Your task to perform on an android device: turn on sleep mode Image 0: 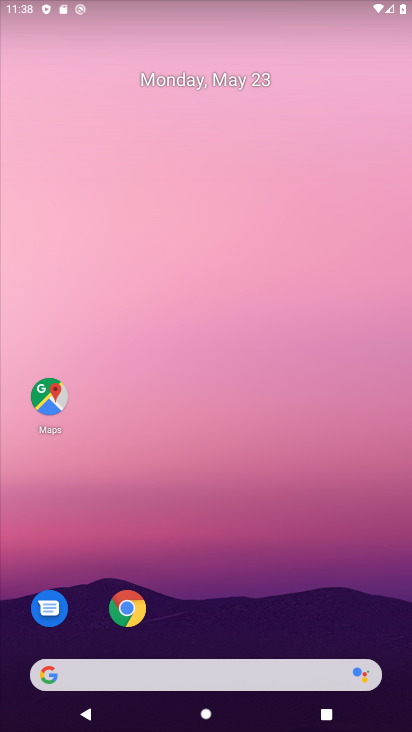
Step 0: press home button
Your task to perform on an android device: turn on sleep mode Image 1: 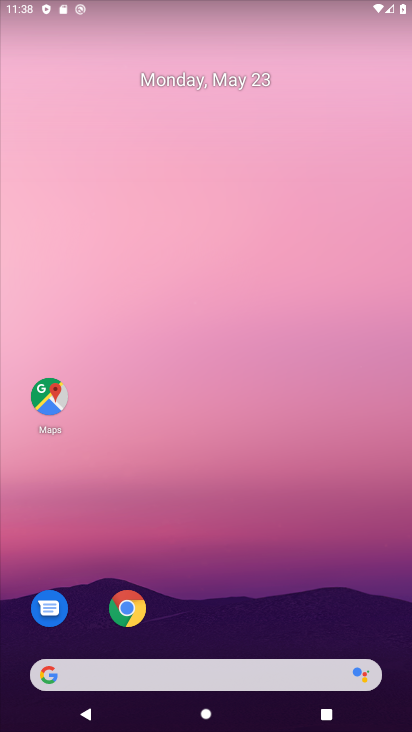
Step 1: drag from (214, 641) to (227, 38)
Your task to perform on an android device: turn on sleep mode Image 2: 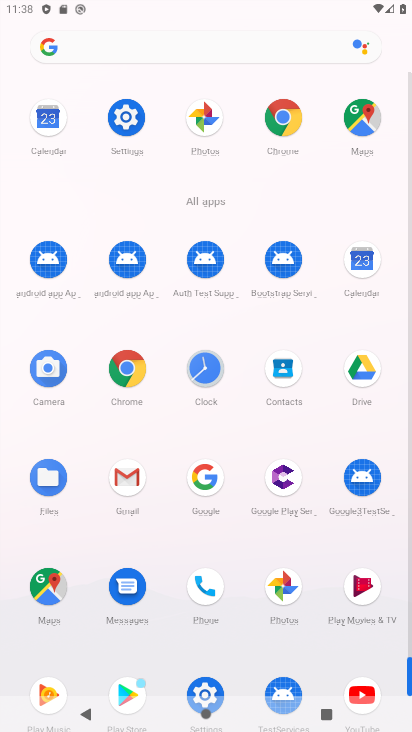
Step 2: click (124, 113)
Your task to perform on an android device: turn on sleep mode Image 3: 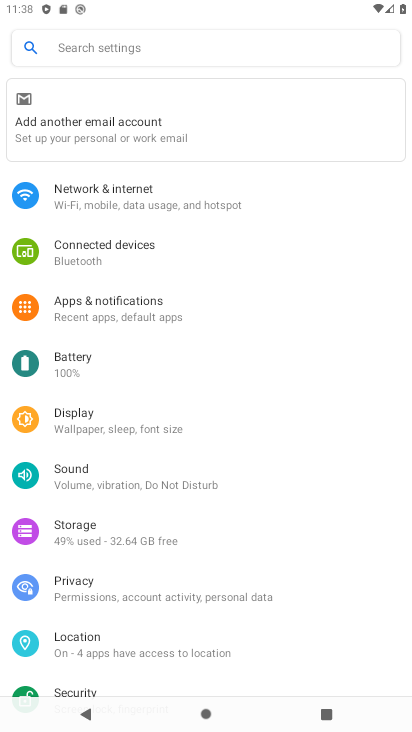
Step 3: click (109, 415)
Your task to perform on an android device: turn on sleep mode Image 4: 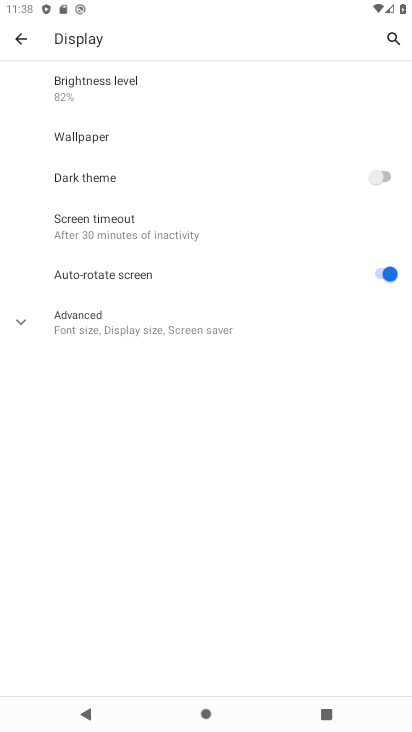
Step 4: click (37, 324)
Your task to perform on an android device: turn on sleep mode Image 5: 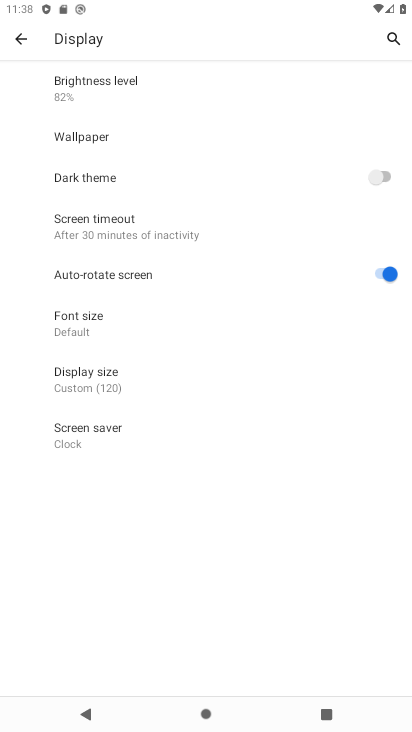
Step 5: task complete